Your task to perform on an android device: open sync settings in chrome Image 0: 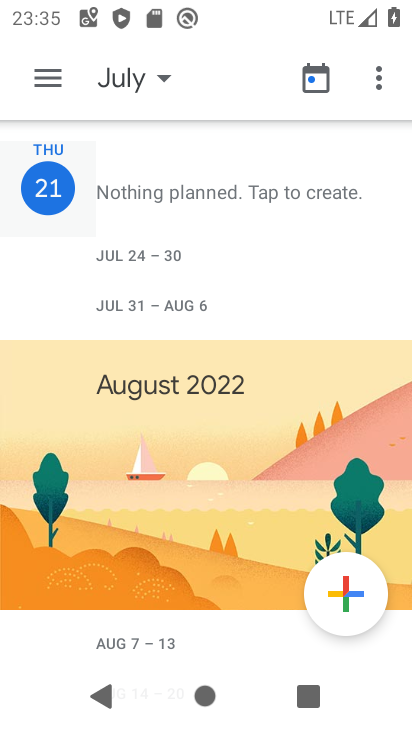
Step 0: press back button
Your task to perform on an android device: open sync settings in chrome Image 1: 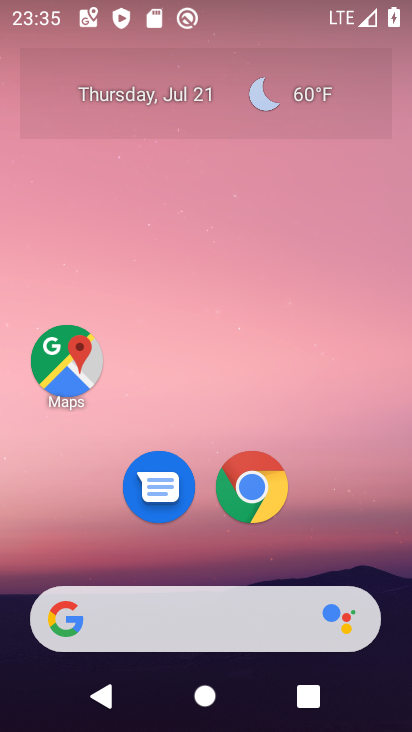
Step 1: click (255, 480)
Your task to perform on an android device: open sync settings in chrome Image 2: 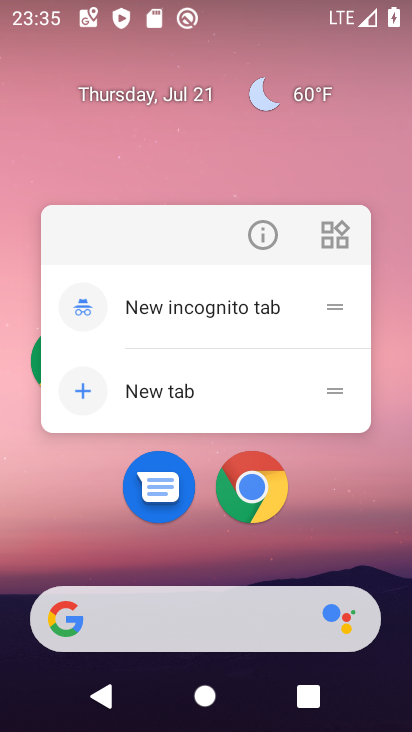
Step 2: click (254, 479)
Your task to perform on an android device: open sync settings in chrome Image 3: 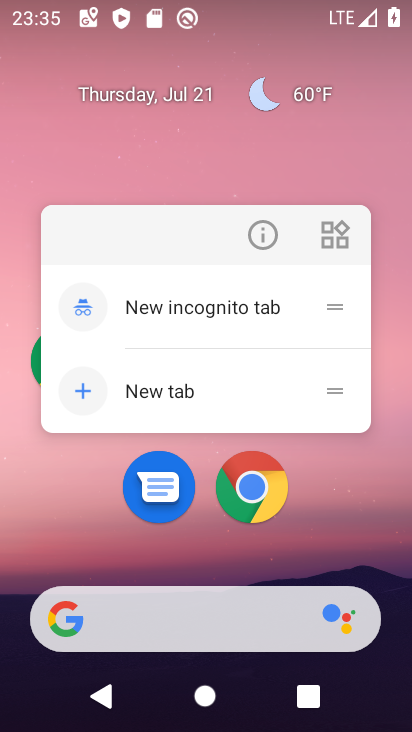
Step 3: click (263, 490)
Your task to perform on an android device: open sync settings in chrome Image 4: 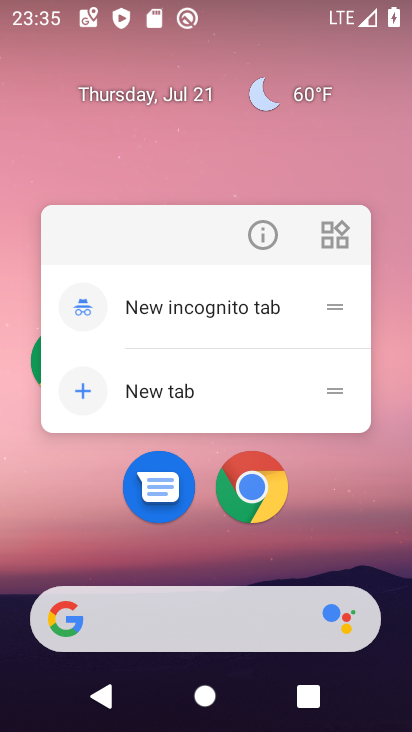
Step 4: click (196, 497)
Your task to perform on an android device: open sync settings in chrome Image 5: 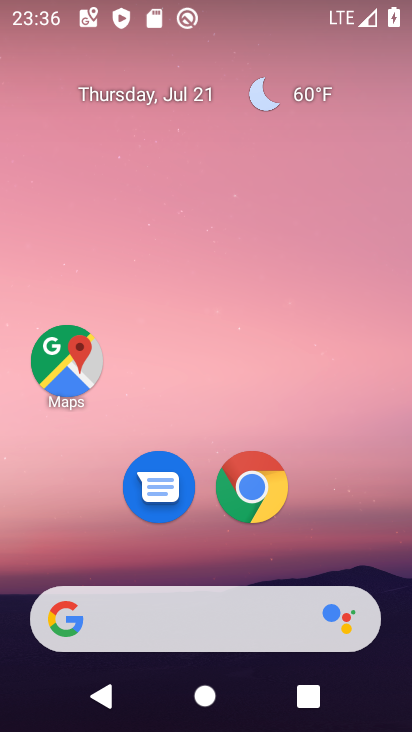
Step 5: click (263, 472)
Your task to perform on an android device: open sync settings in chrome Image 6: 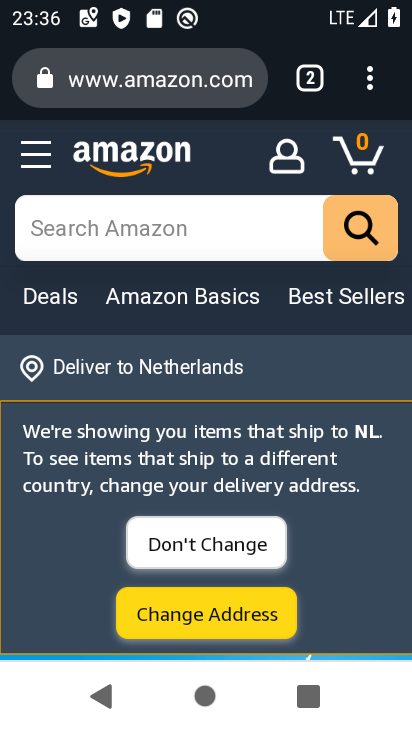
Step 6: drag from (372, 75) to (98, 549)
Your task to perform on an android device: open sync settings in chrome Image 7: 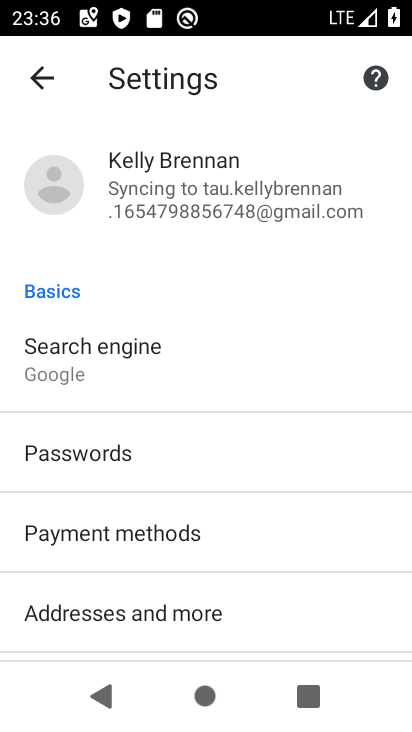
Step 7: click (192, 187)
Your task to perform on an android device: open sync settings in chrome Image 8: 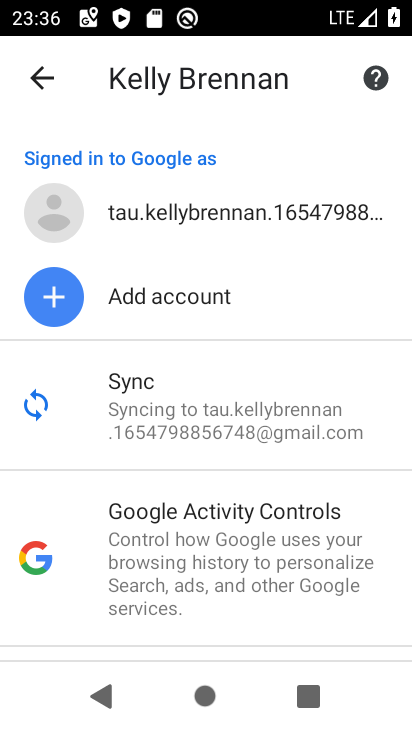
Step 8: task complete